Your task to perform on an android device: set the timer Image 0: 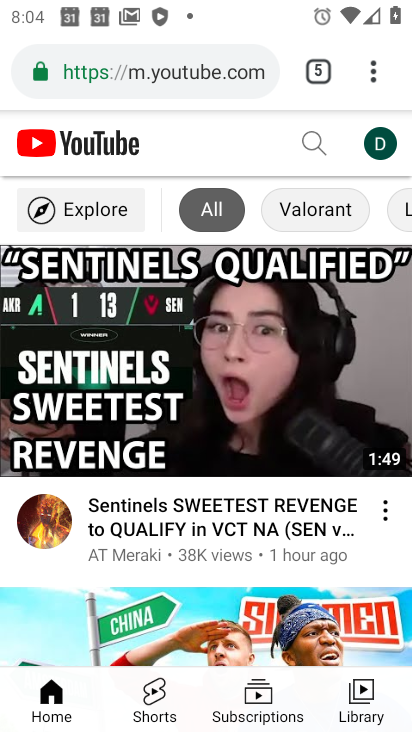
Step 0: press home button
Your task to perform on an android device: set the timer Image 1: 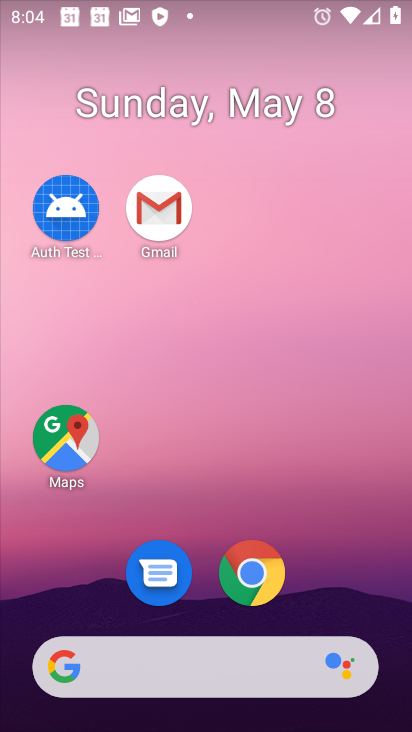
Step 1: drag from (341, 513) to (206, 106)
Your task to perform on an android device: set the timer Image 2: 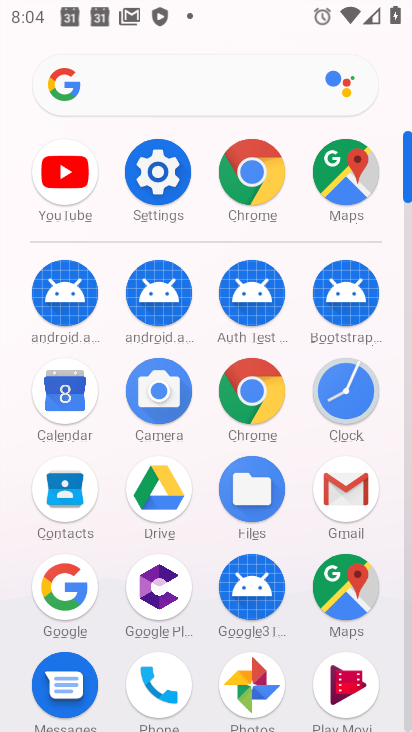
Step 2: click (345, 398)
Your task to perform on an android device: set the timer Image 3: 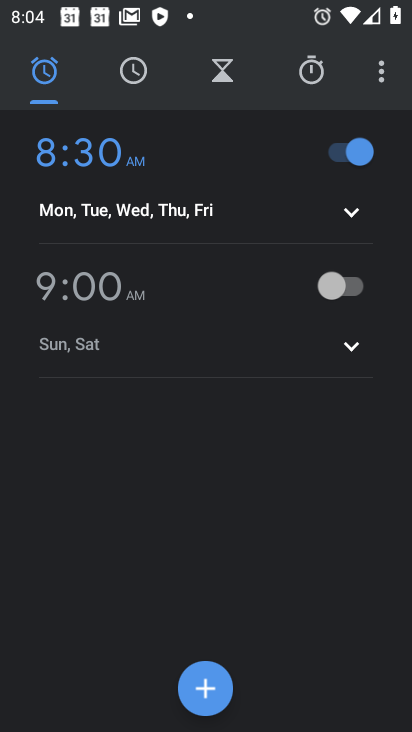
Step 3: click (218, 78)
Your task to perform on an android device: set the timer Image 4: 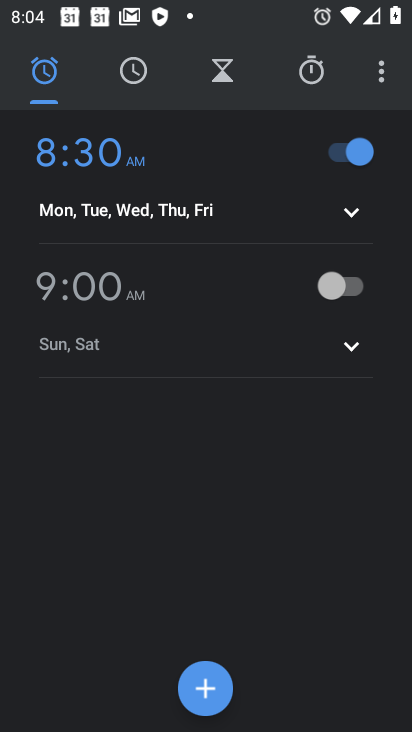
Step 4: click (218, 78)
Your task to perform on an android device: set the timer Image 5: 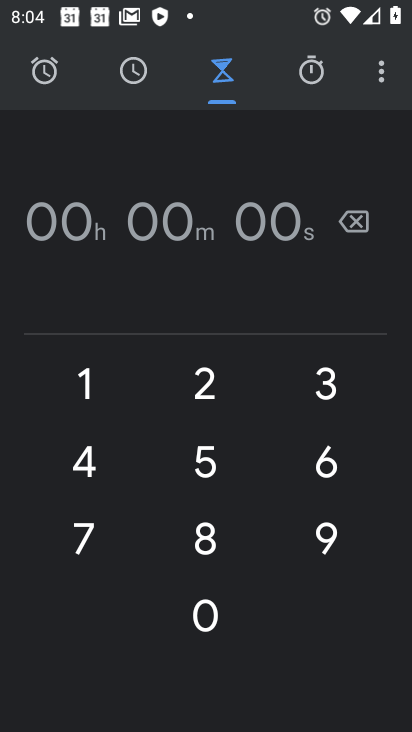
Step 5: click (218, 78)
Your task to perform on an android device: set the timer Image 6: 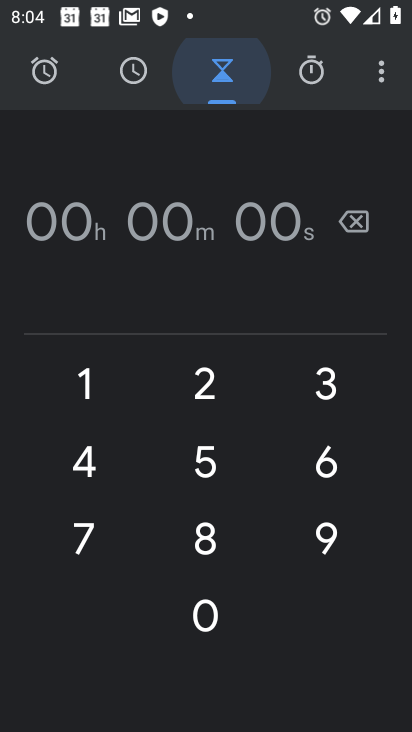
Step 6: click (218, 78)
Your task to perform on an android device: set the timer Image 7: 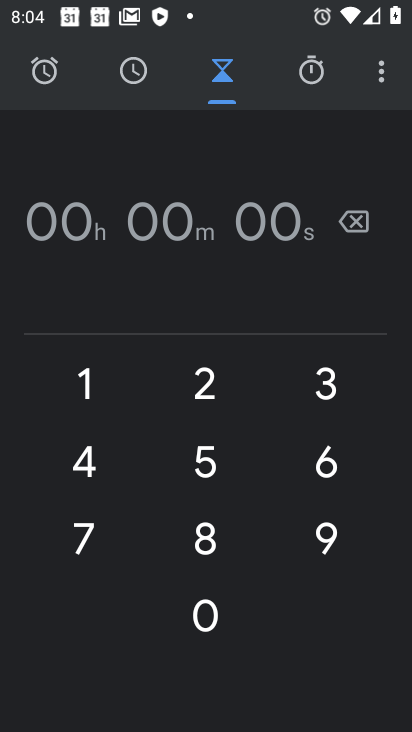
Step 7: click (210, 623)
Your task to perform on an android device: set the timer Image 8: 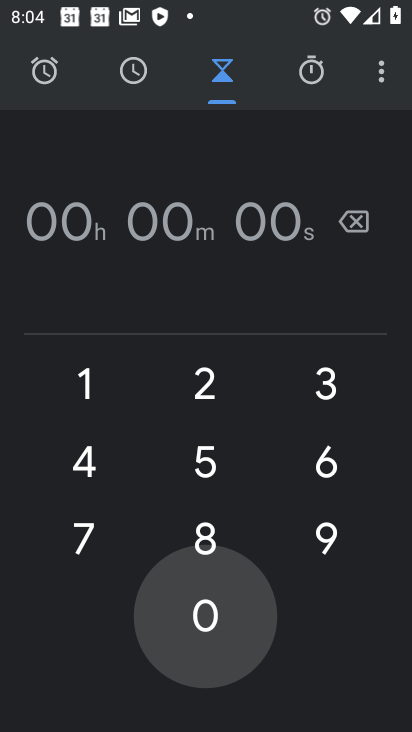
Step 8: click (206, 623)
Your task to perform on an android device: set the timer Image 9: 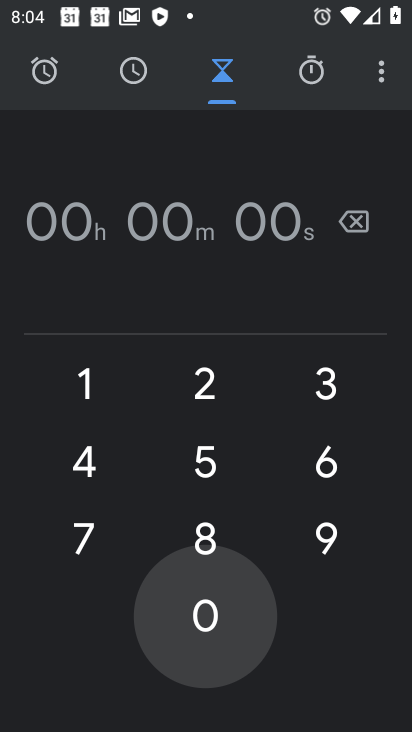
Step 9: click (201, 622)
Your task to perform on an android device: set the timer Image 10: 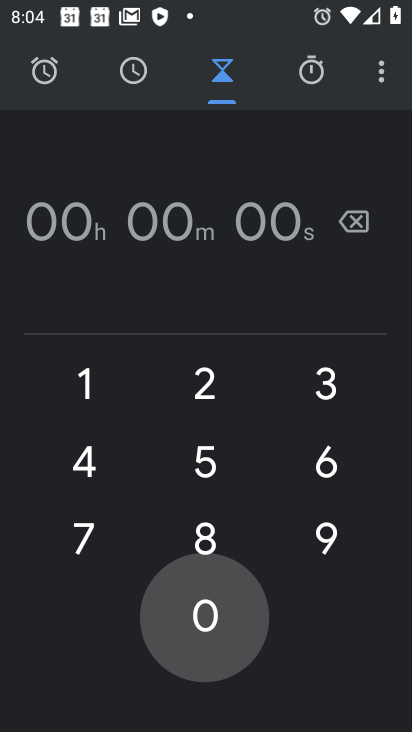
Step 10: click (201, 622)
Your task to perform on an android device: set the timer Image 11: 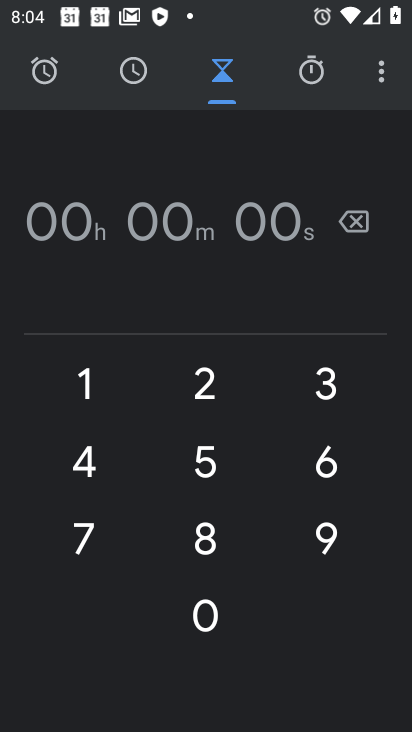
Step 11: click (207, 540)
Your task to perform on an android device: set the timer Image 12: 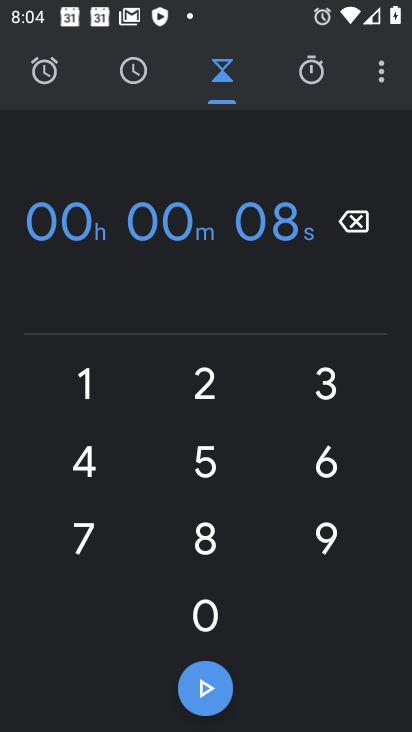
Step 12: click (208, 699)
Your task to perform on an android device: set the timer Image 13: 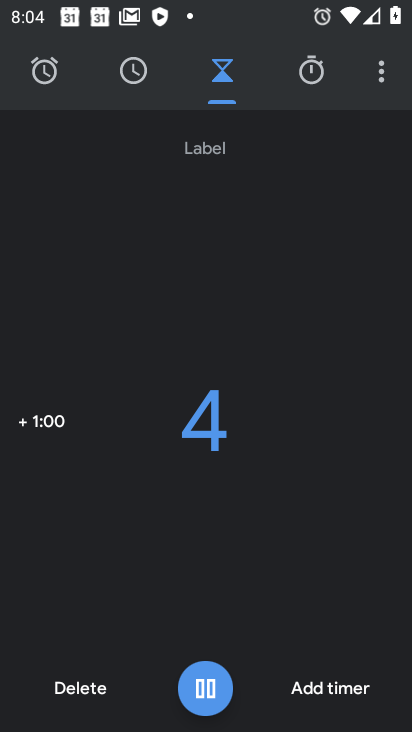
Step 13: click (201, 689)
Your task to perform on an android device: set the timer Image 14: 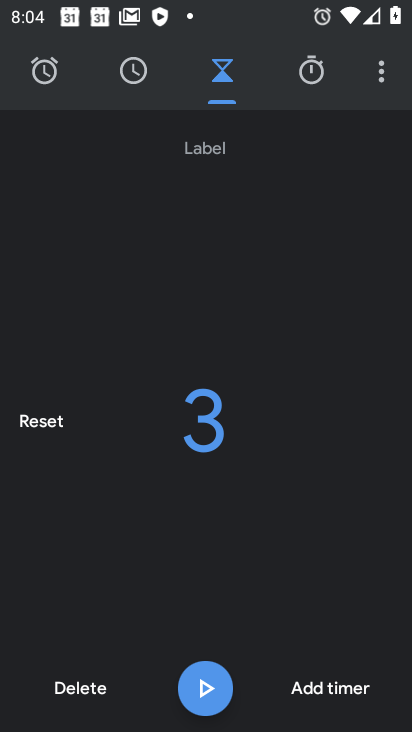
Step 14: click (204, 688)
Your task to perform on an android device: set the timer Image 15: 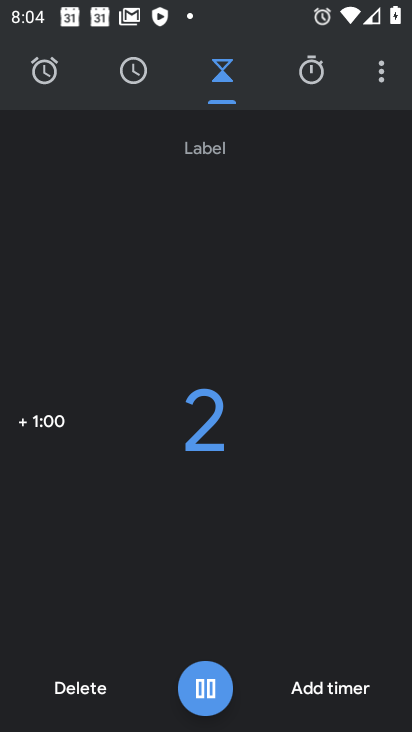
Step 15: task complete